Your task to perform on an android device: toggle priority inbox in the gmail app Image 0: 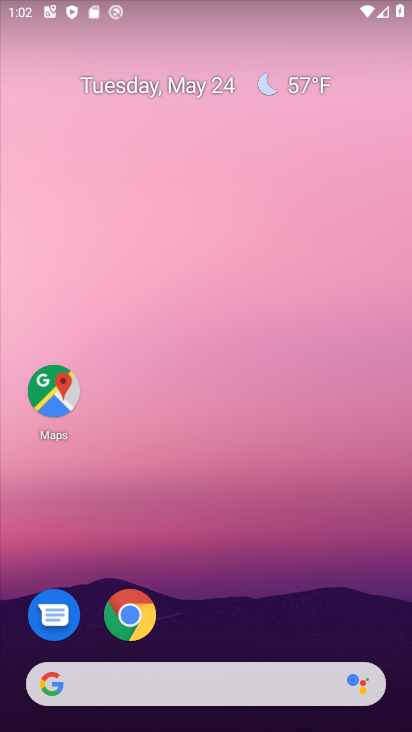
Step 0: drag from (249, 662) to (321, 27)
Your task to perform on an android device: toggle priority inbox in the gmail app Image 1: 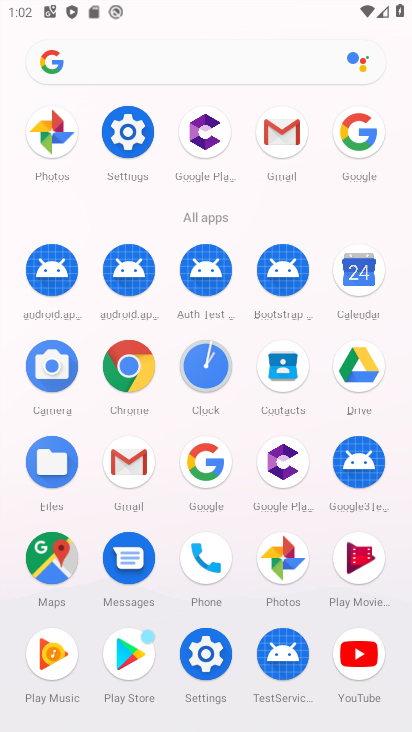
Step 1: click (133, 458)
Your task to perform on an android device: toggle priority inbox in the gmail app Image 2: 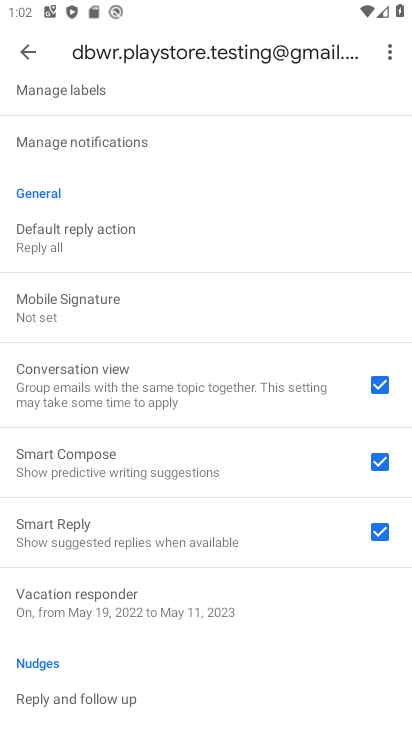
Step 2: drag from (77, 101) to (69, 306)
Your task to perform on an android device: toggle priority inbox in the gmail app Image 3: 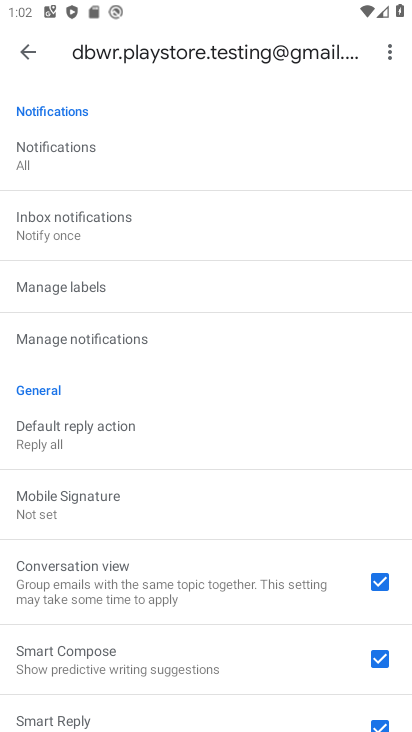
Step 3: drag from (171, 125) to (156, 541)
Your task to perform on an android device: toggle priority inbox in the gmail app Image 4: 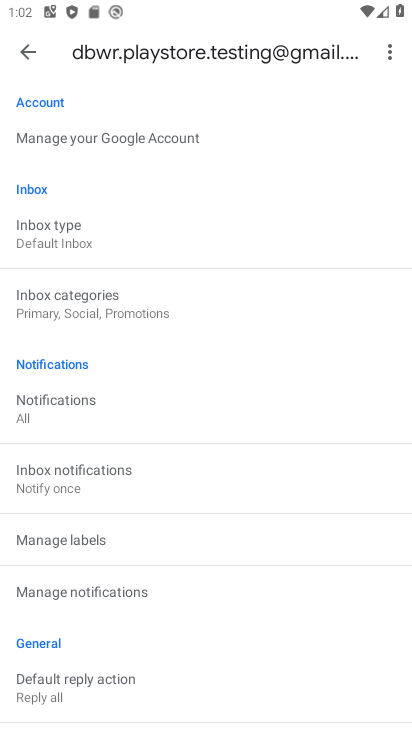
Step 4: click (64, 236)
Your task to perform on an android device: toggle priority inbox in the gmail app Image 5: 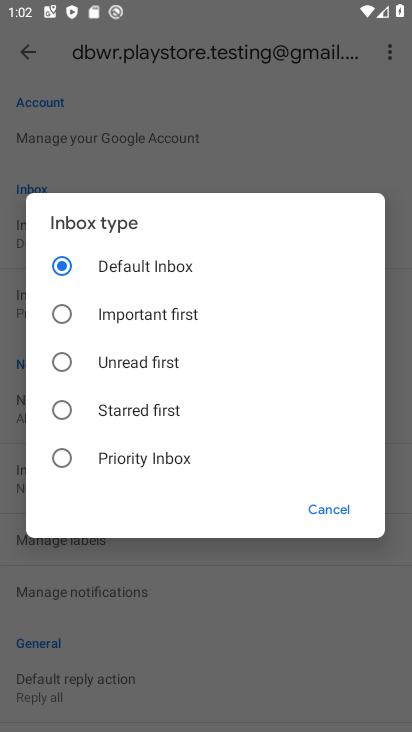
Step 5: click (139, 440)
Your task to perform on an android device: toggle priority inbox in the gmail app Image 6: 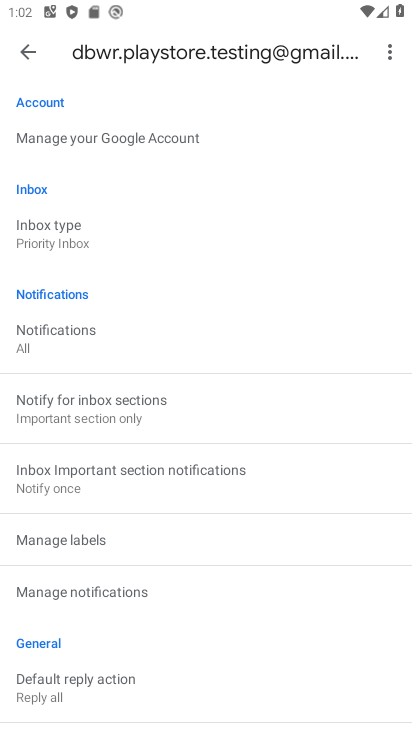
Step 6: task complete